Your task to perform on an android device: Look up the best rated wireless earbuds on Ali Express Image 0: 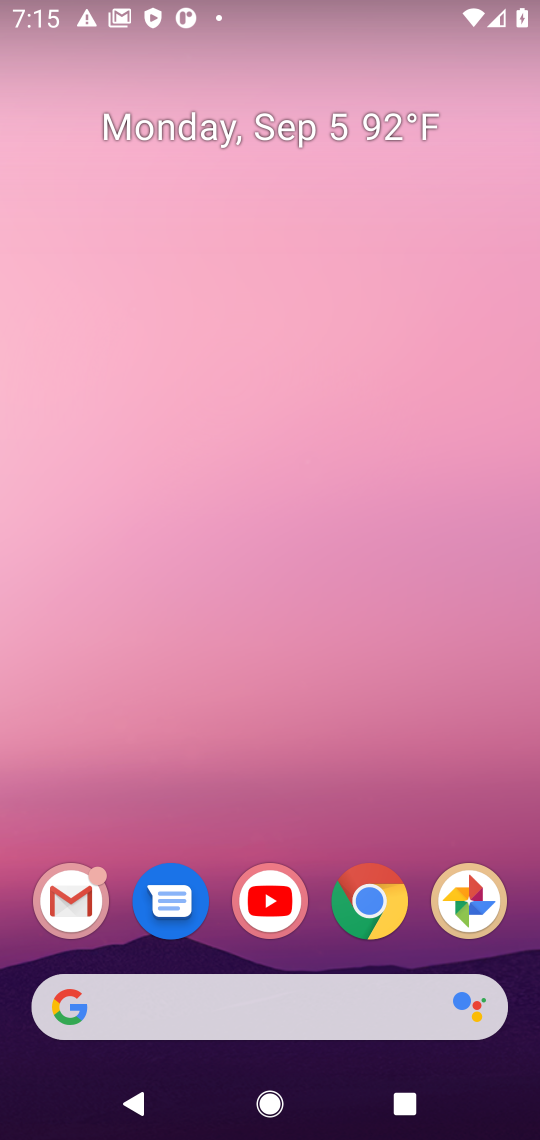
Step 0: click (386, 904)
Your task to perform on an android device: Look up the best rated wireless earbuds on Ali Express Image 1: 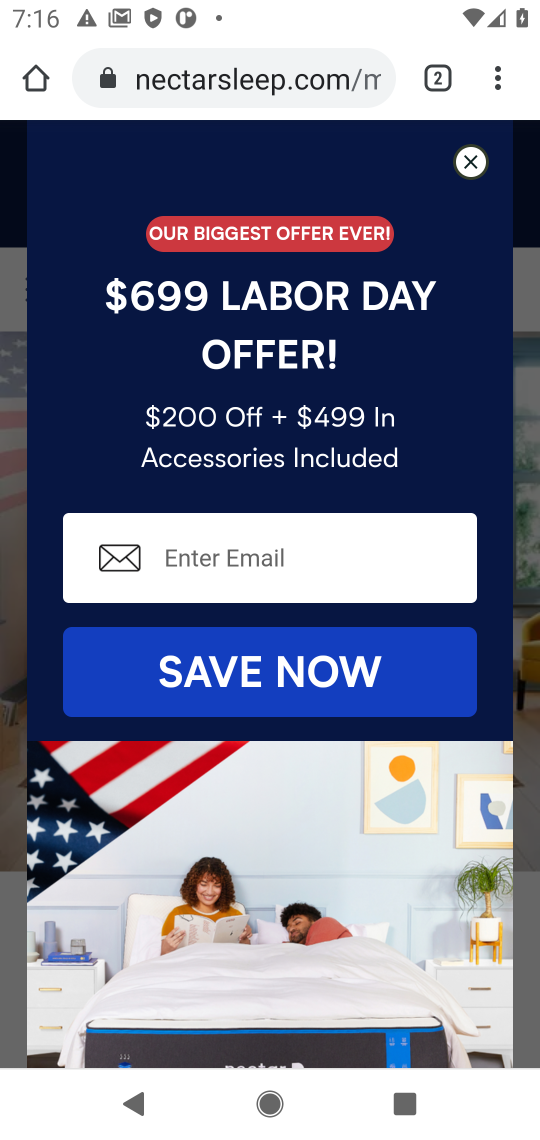
Step 1: click (289, 90)
Your task to perform on an android device: Look up the best rated wireless earbuds on Ali Express Image 2: 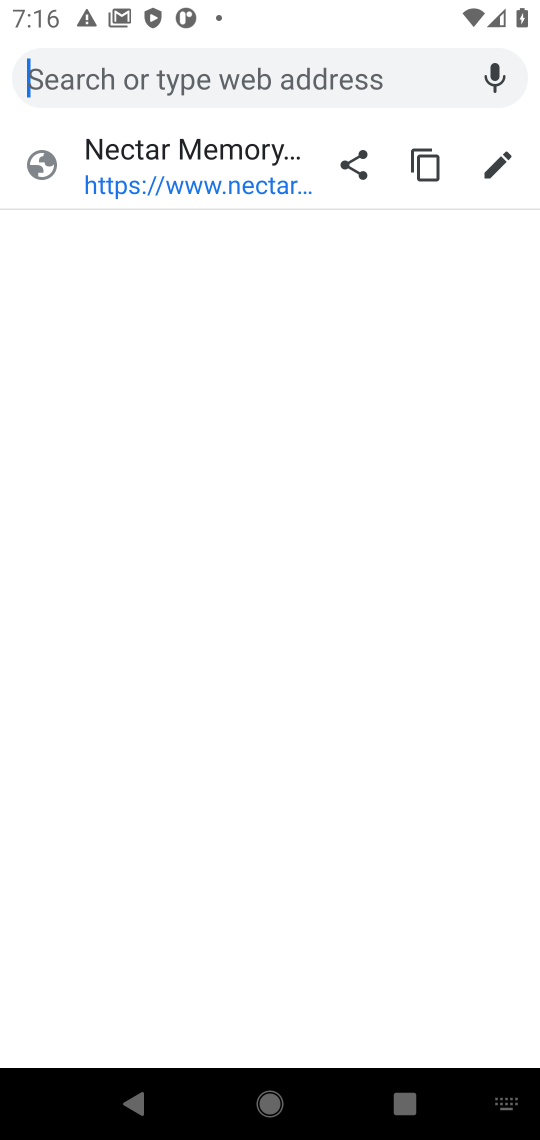
Step 2: type "aliexpress"
Your task to perform on an android device: Look up the best rated wireless earbuds on Ali Express Image 3: 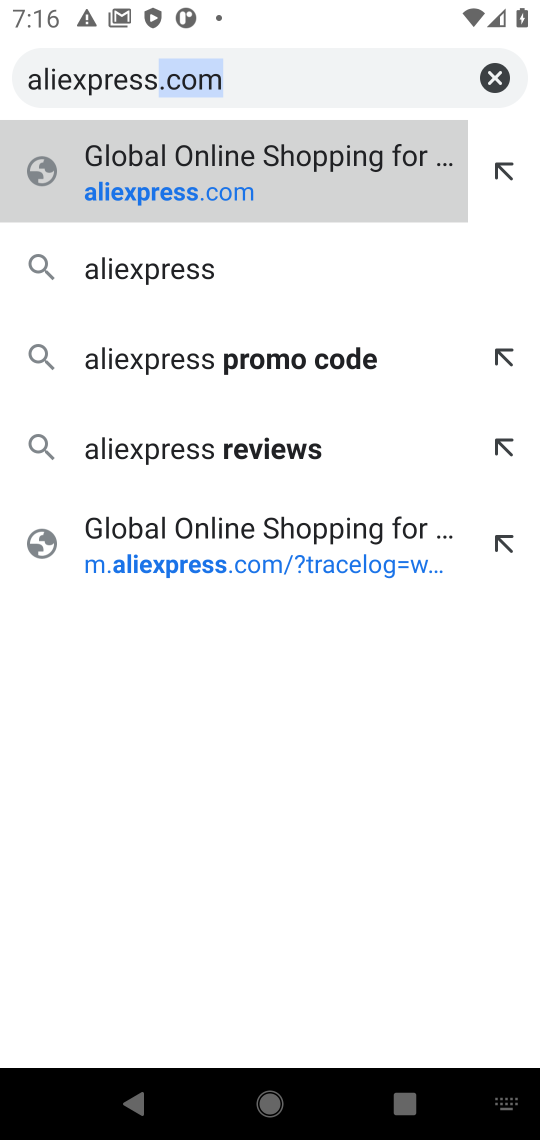
Step 3: click (171, 191)
Your task to perform on an android device: Look up the best rated wireless earbuds on Ali Express Image 4: 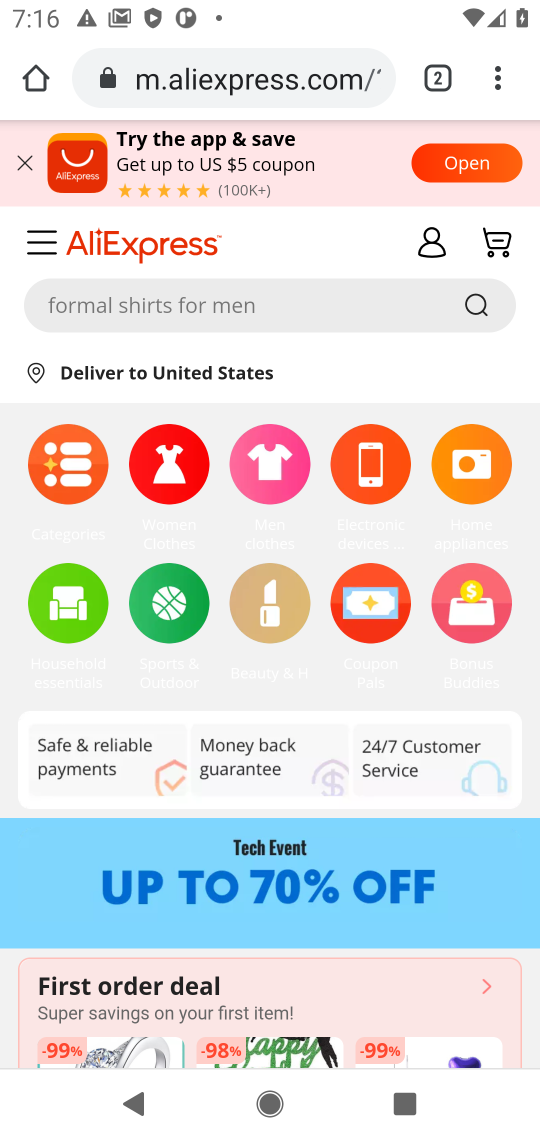
Step 4: click (269, 299)
Your task to perform on an android device: Look up the best rated wireless earbuds on Ali Express Image 5: 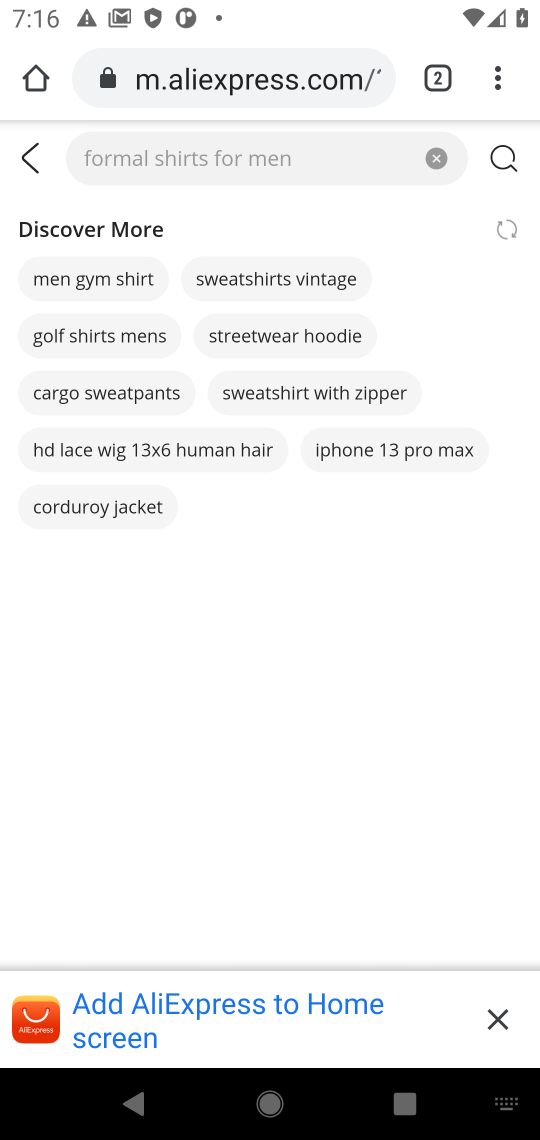
Step 5: type "wireless earbud"
Your task to perform on an android device: Look up the best rated wireless earbuds on Ali Express Image 6: 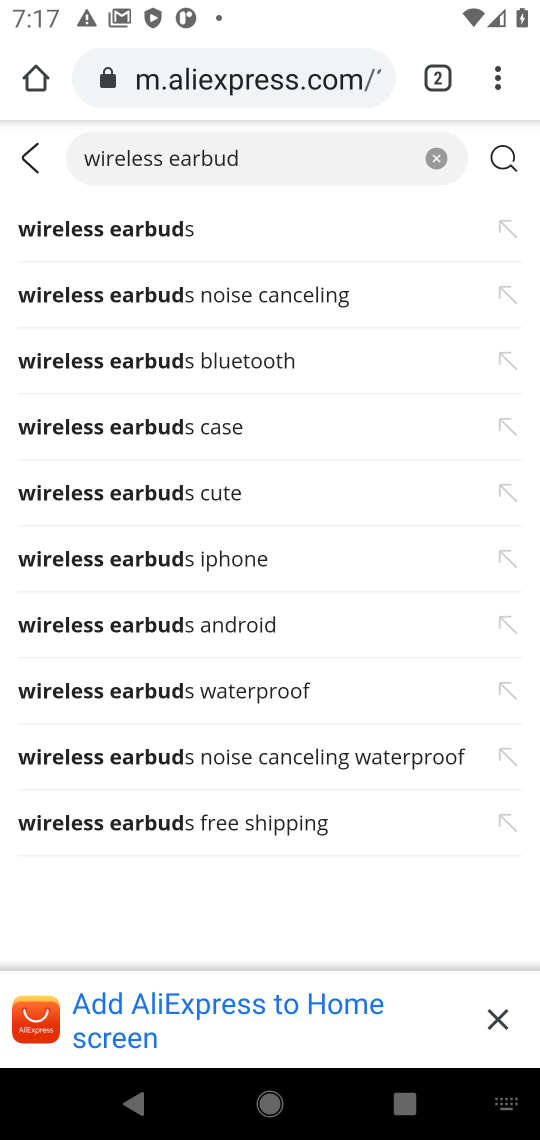
Step 6: click (151, 245)
Your task to perform on an android device: Look up the best rated wireless earbuds on Ali Express Image 7: 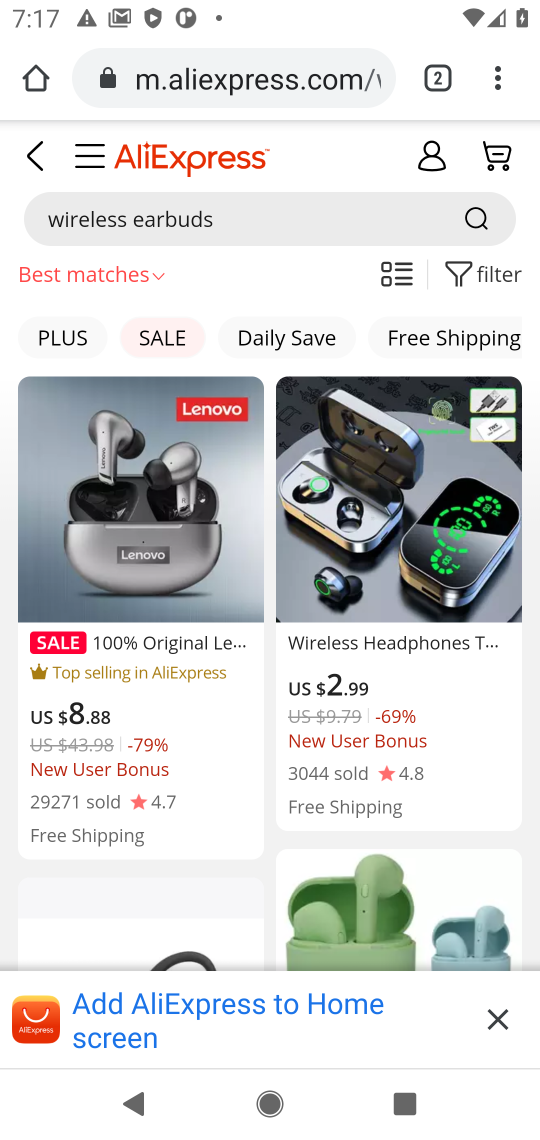
Step 7: task complete